Your task to perform on an android device: Open wifi settings Image 0: 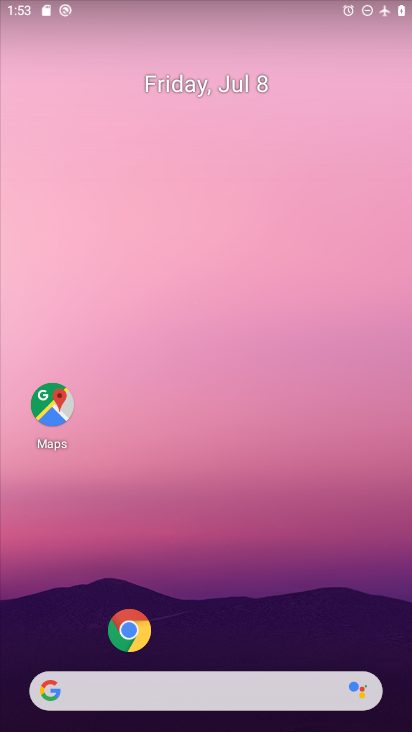
Step 0: drag from (264, 695) to (326, 105)
Your task to perform on an android device: Open wifi settings Image 1: 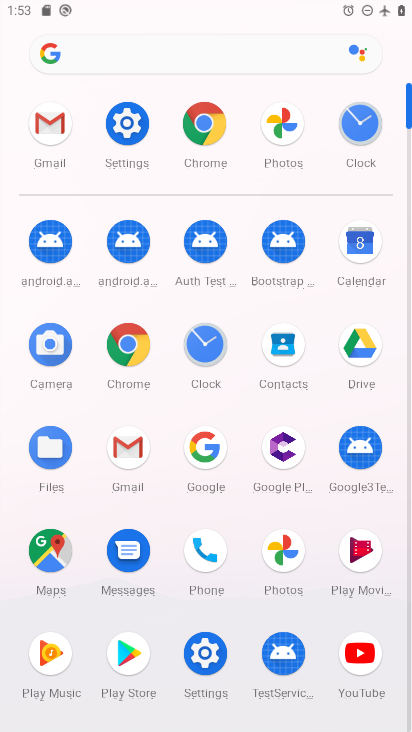
Step 1: click (116, 129)
Your task to perform on an android device: Open wifi settings Image 2: 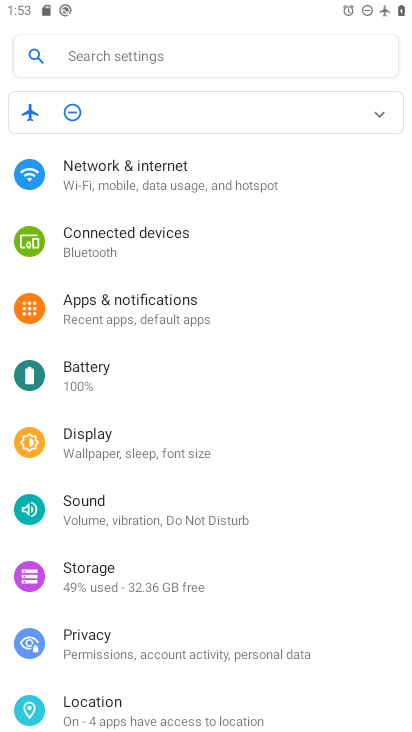
Step 2: click (118, 183)
Your task to perform on an android device: Open wifi settings Image 3: 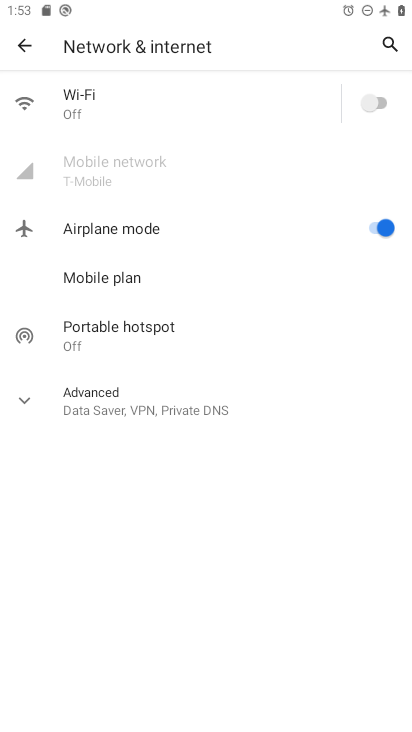
Step 3: click (146, 107)
Your task to perform on an android device: Open wifi settings Image 4: 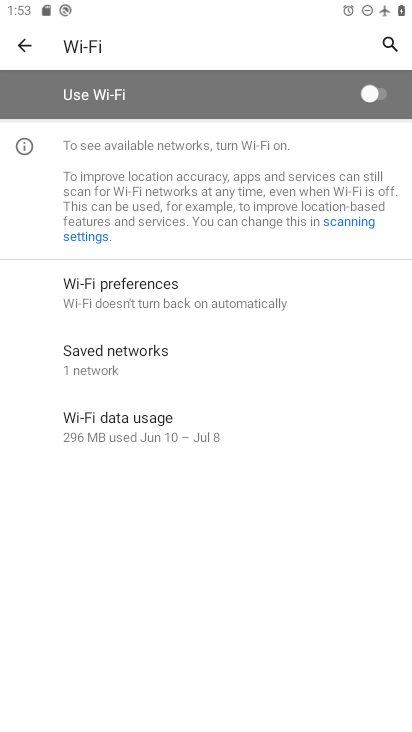
Step 4: task complete